Your task to perform on an android device: turn on the 24-hour format for clock Image 0: 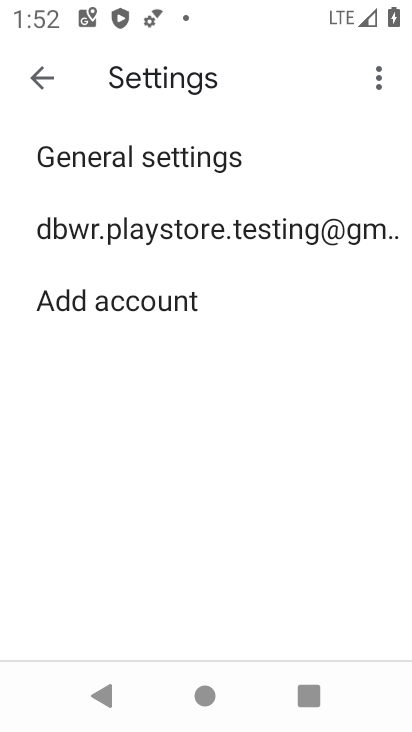
Step 0: press home button
Your task to perform on an android device: turn on the 24-hour format for clock Image 1: 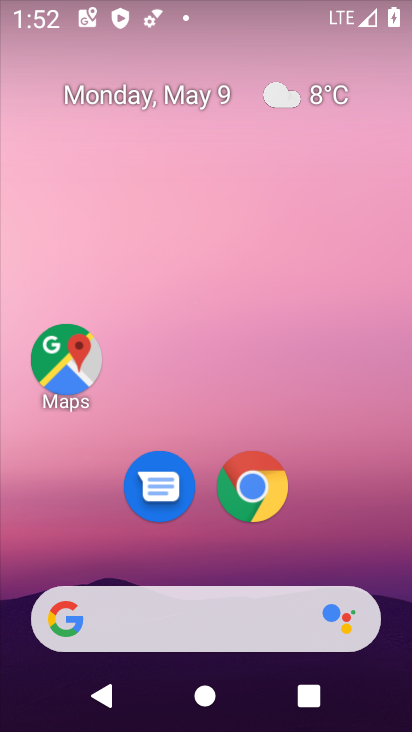
Step 1: drag from (287, 581) to (411, 157)
Your task to perform on an android device: turn on the 24-hour format for clock Image 2: 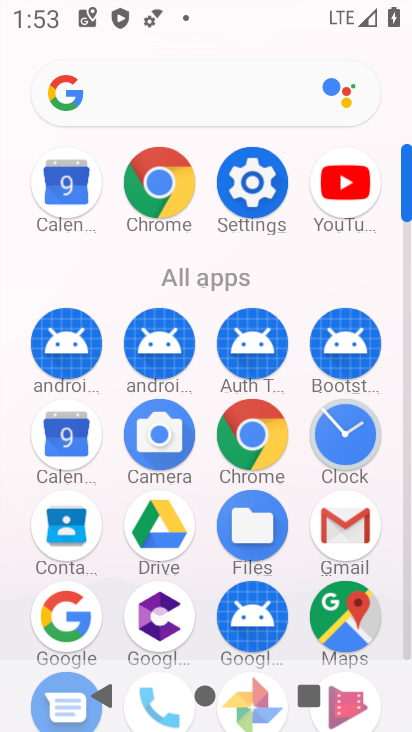
Step 2: click (341, 440)
Your task to perform on an android device: turn on the 24-hour format for clock Image 3: 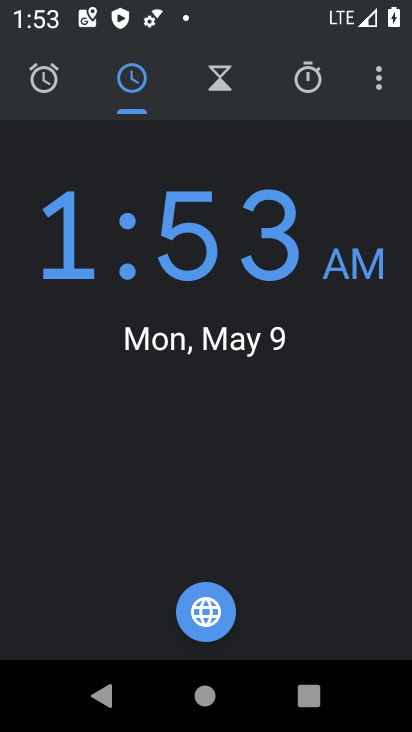
Step 3: click (334, 79)
Your task to perform on an android device: turn on the 24-hour format for clock Image 4: 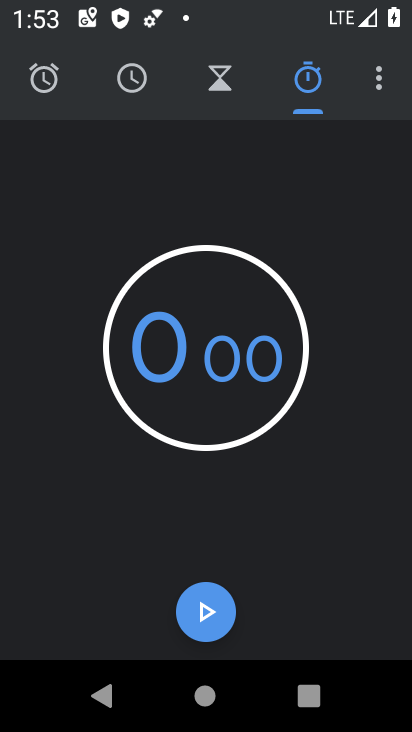
Step 4: click (63, 83)
Your task to perform on an android device: turn on the 24-hour format for clock Image 5: 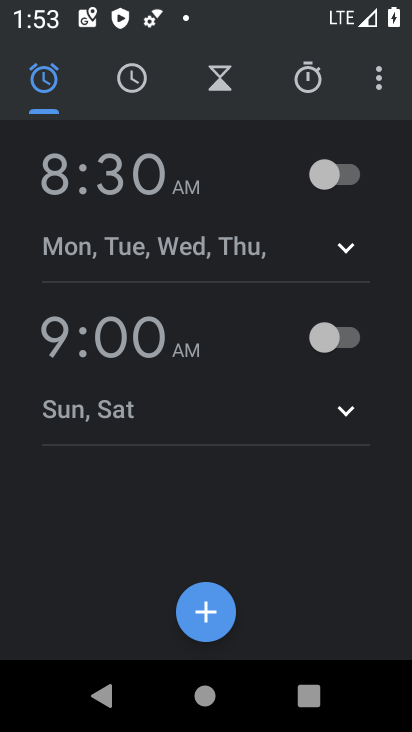
Step 5: press home button
Your task to perform on an android device: turn on the 24-hour format for clock Image 6: 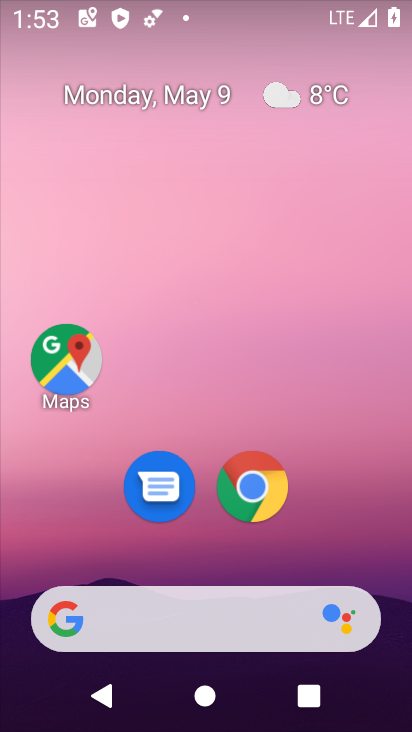
Step 6: drag from (199, 544) to (378, 59)
Your task to perform on an android device: turn on the 24-hour format for clock Image 7: 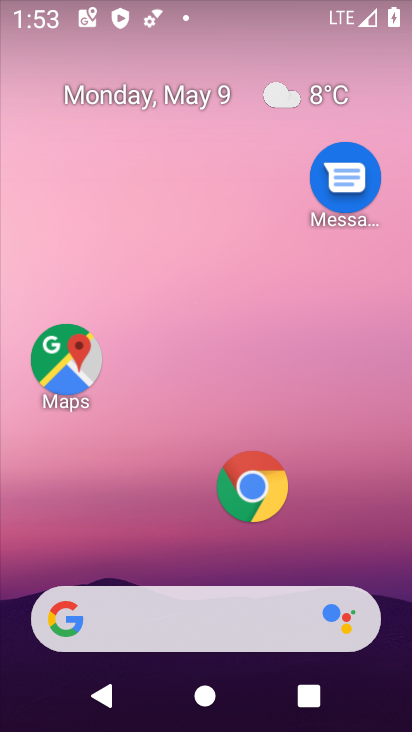
Step 7: drag from (184, 710) to (280, 332)
Your task to perform on an android device: turn on the 24-hour format for clock Image 8: 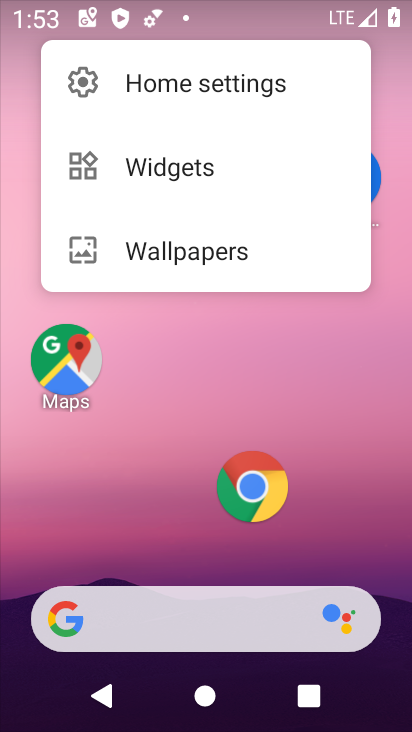
Step 8: click (219, 278)
Your task to perform on an android device: turn on the 24-hour format for clock Image 9: 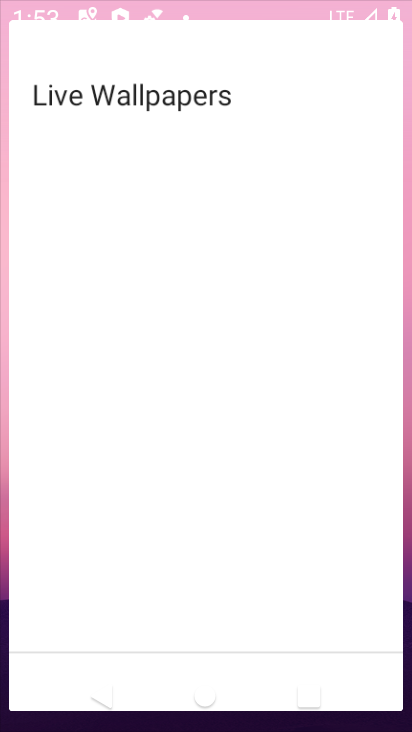
Step 9: click (186, 421)
Your task to perform on an android device: turn on the 24-hour format for clock Image 10: 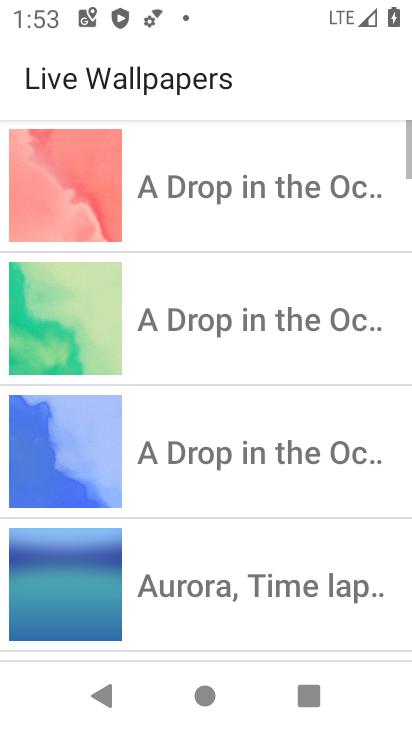
Step 10: click (122, 689)
Your task to perform on an android device: turn on the 24-hour format for clock Image 11: 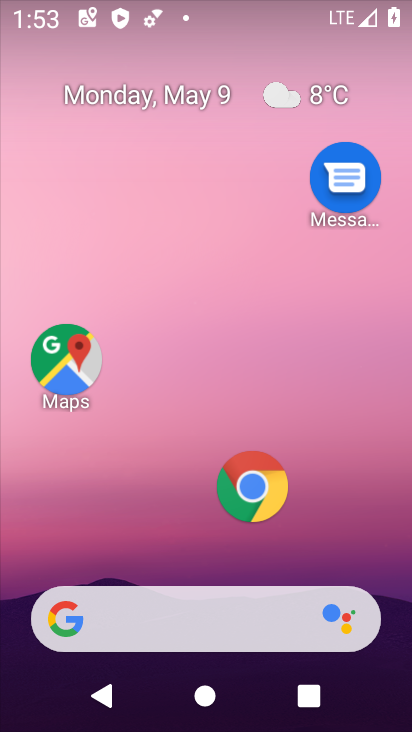
Step 11: drag from (147, 456) to (252, 243)
Your task to perform on an android device: turn on the 24-hour format for clock Image 12: 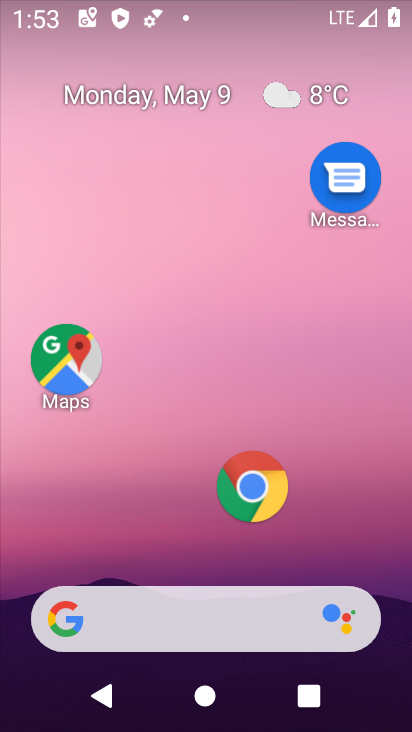
Step 12: drag from (268, 698) to (399, 354)
Your task to perform on an android device: turn on the 24-hour format for clock Image 13: 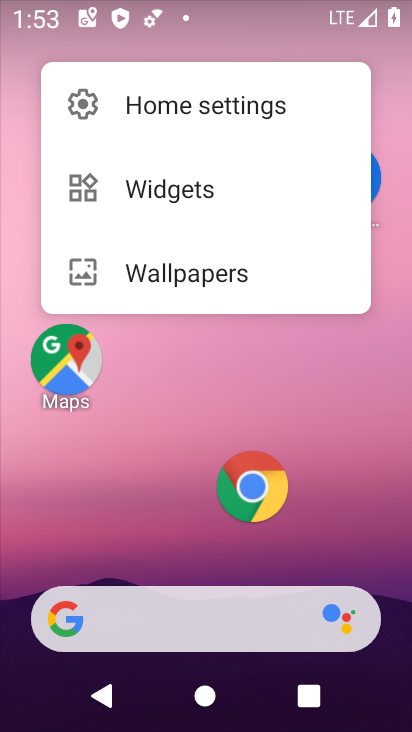
Step 13: drag from (156, 706) to (341, 285)
Your task to perform on an android device: turn on the 24-hour format for clock Image 14: 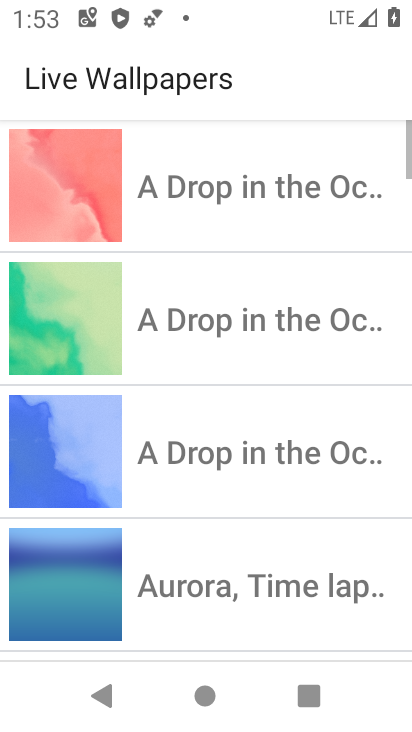
Step 14: click (115, 681)
Your task to perform on an android device: turn on the 24-hour format for clock Image 15: 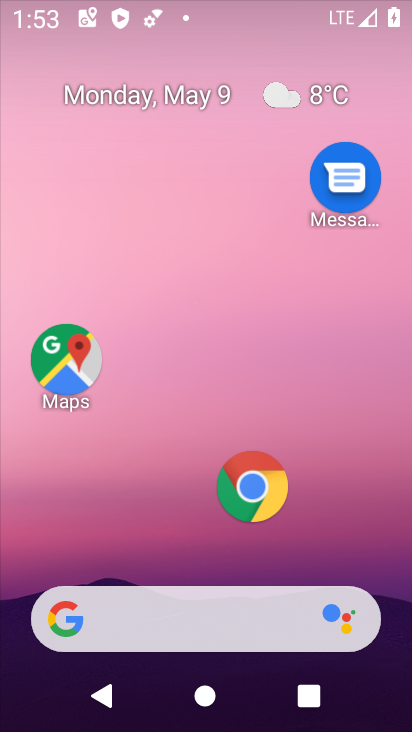
Step 15: drag from (222, 474) to (369, 168)
Your task to perform on an android device: turn on the 24-hour format for clock Image 16: 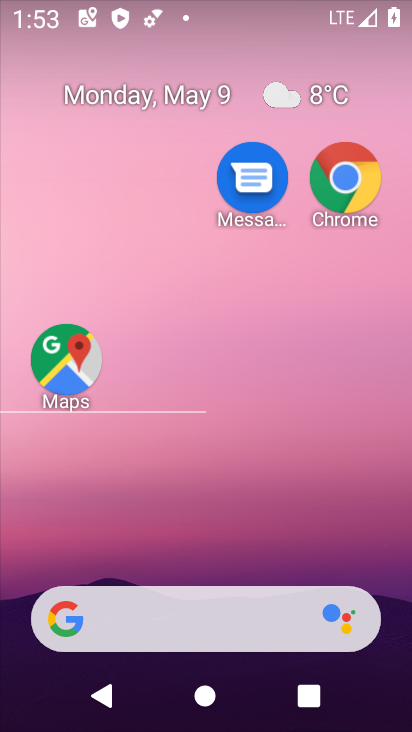
Step 16: click (164, 483)
Your task to perform on an android device: turn on the 24-hour format for clock Image 17: 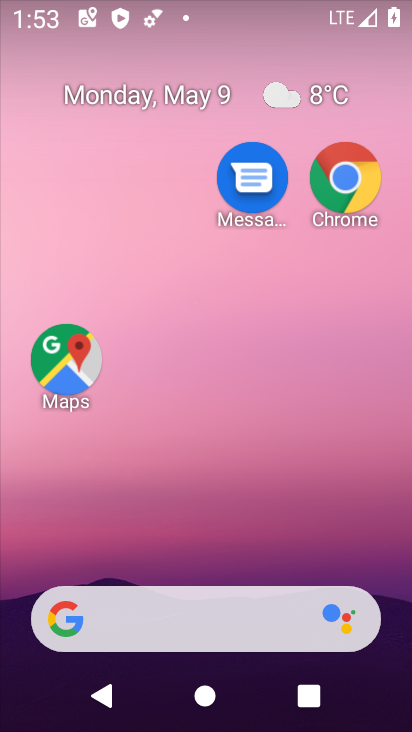
Step 17: drag from (163, 490) to (334, 66)
Your task to perform on an android device: turn on the 24-hour format for clock Image 18: 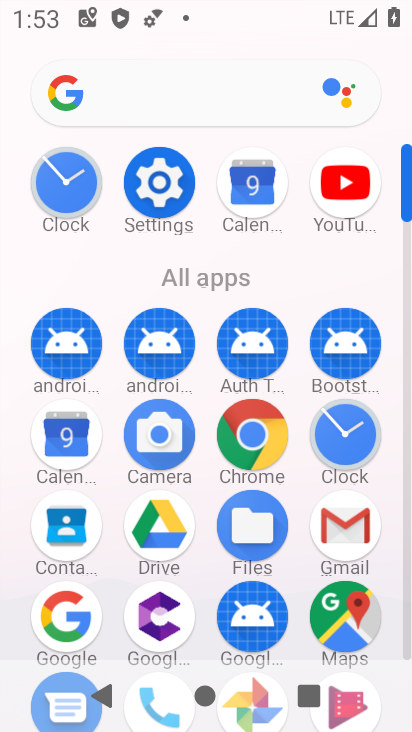
Step 18: click (149, 173)
Your task to perform on an android device: turn on the 24-hour format for clock Image 19: 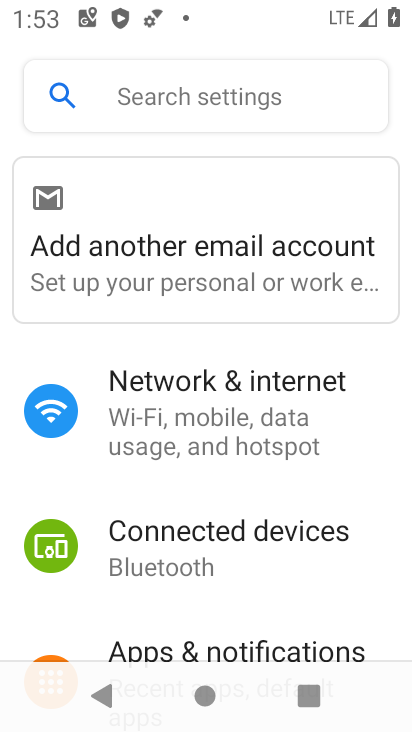
Step 19: drag from (148, 559) to (222, 278)
Your task to perform on an android device: turn on the 24-hour format for clock Image 20: 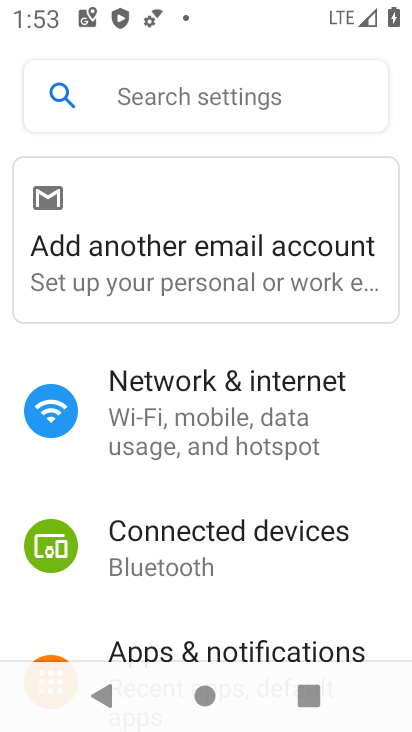
Step 20: drag from (107, 641) to (412, 159)
Your task to perform on an android device: turn on the 24-hour format for clock Image 21: 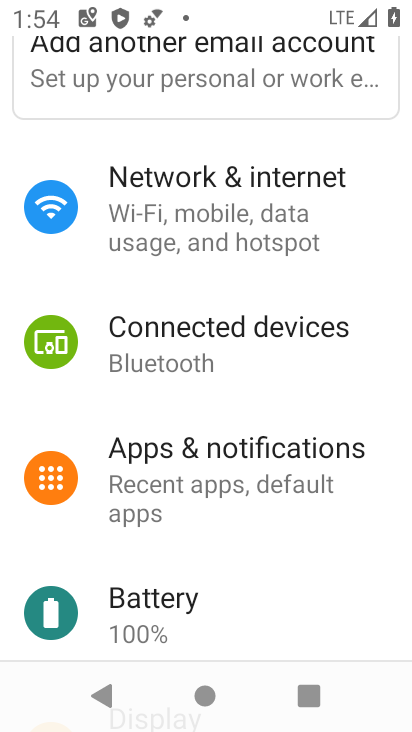
Step 21: drag from (192, 556) to (270, 163)
Your task to perform on an android device: turn on the 24-hour format for clock Image 22: 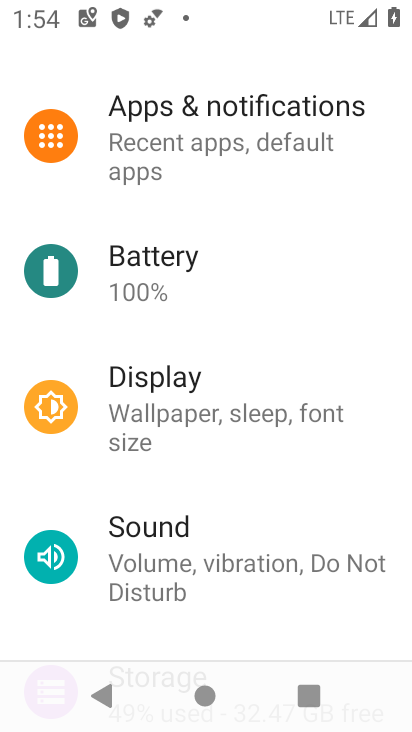
Step 22: drag from (182, 488) to (318, 69)
Your task to perform on an android device: turn on the 24-hour format for clock Image 23: 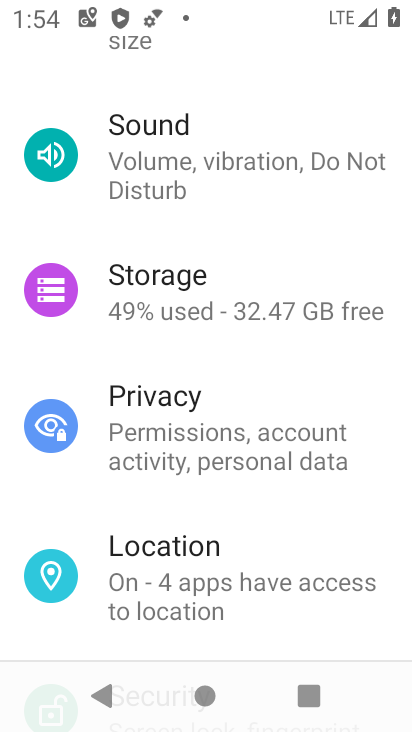
Step 23: drag from (195, 455) to (310, 157)
Your task to perform on an android device: turn on the 24-hour format for clock Image 24: 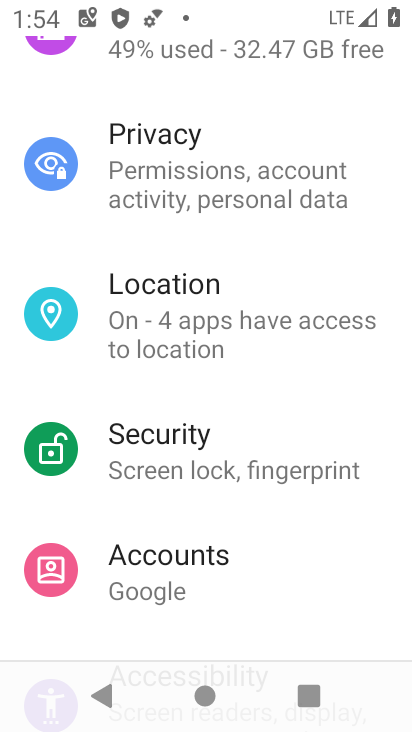
Step 24: drag from (195, 516) to (311, 196)
Your task to perform on an android device: turn on the 24-hour format for clock Image 25: 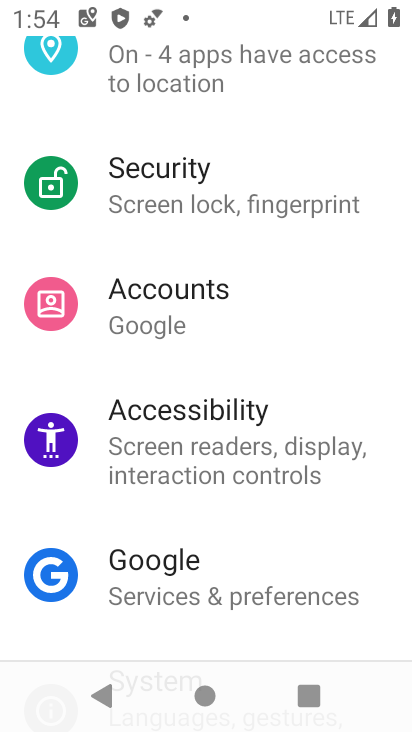
Step 25: drag from (195, 542) to (304, 130)
Your task to perform on an android device: turn on the 24-hour format for clock Image 26: 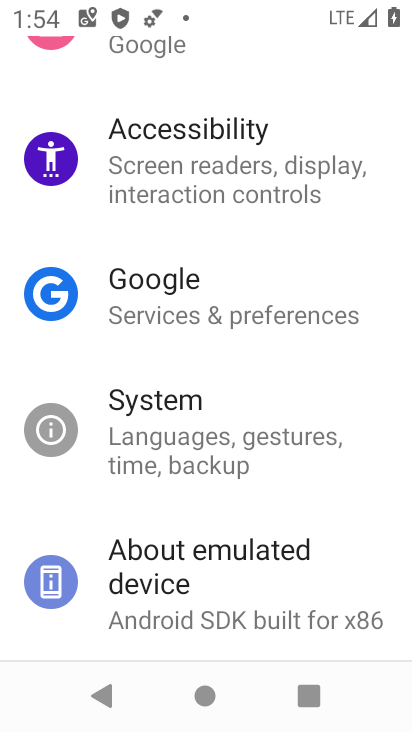
Step 26: drag from (159, 565) to (333, 112)
Your task to perform on an android device: turn on the 24-hour format for clock Image 27: 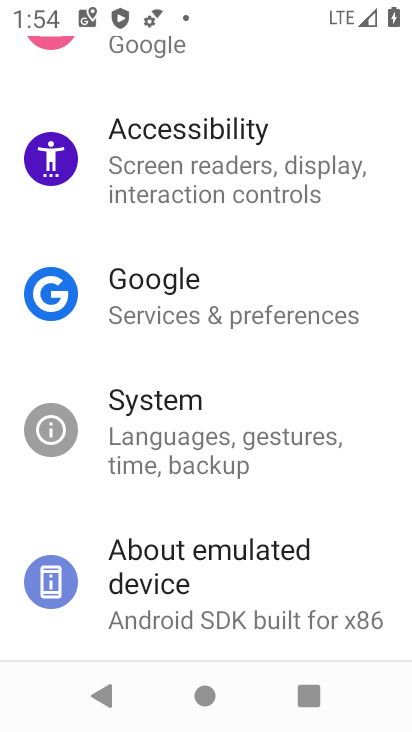
Step 27: drag from (249, 234) to (187, 605)
Your task to perform on an android device: turn on the 24-hour format for clock Image 28: 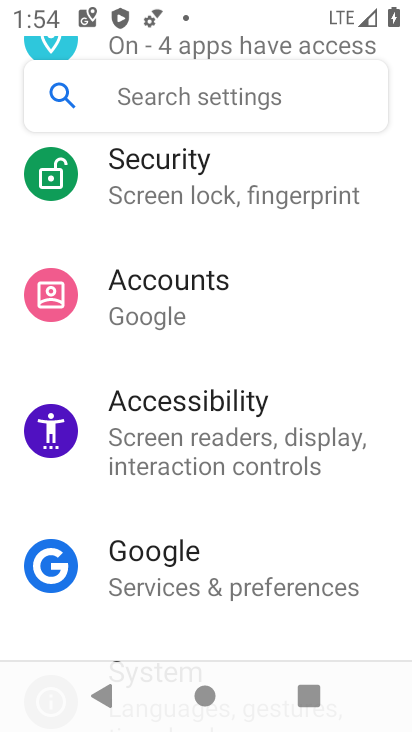
Step 28: drag from (297, 208) to (202, 568)
Your task to perform on an android device: turn on the 24-hour format for clock Image 29: 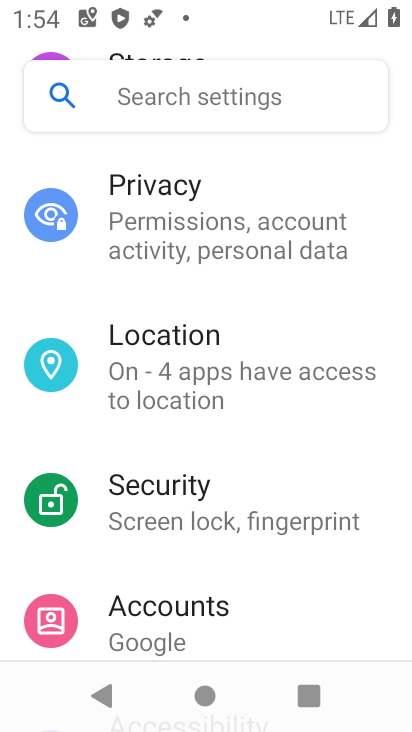
Step 29: drag from (312, 208) to (192, 508)
Your task to perform on an android device: turn on the 24-hour format for clock Image 30: 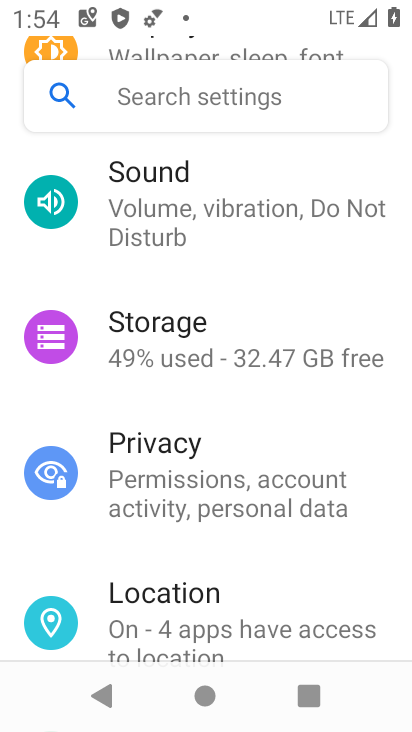
Step 30: drag from (343, 136) to (204, 471)
Your task to perform on an android device: turn on the 24-hour format for clock Image 31: 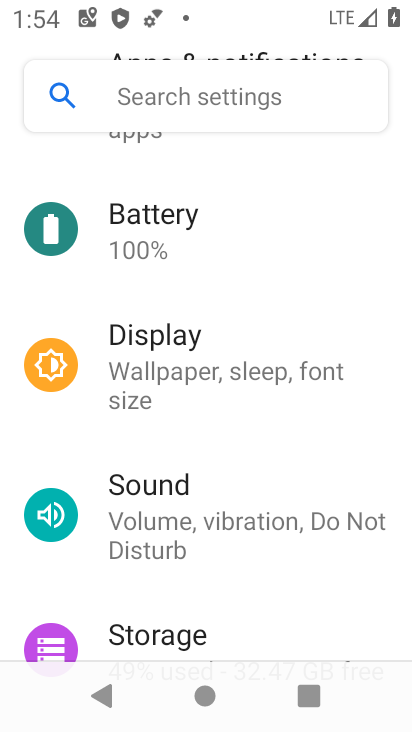
Step 31: drag from (298, 276) to (187, 646)
Your task to perform on an android device: turn on the 24-hour format for clock Image 32: 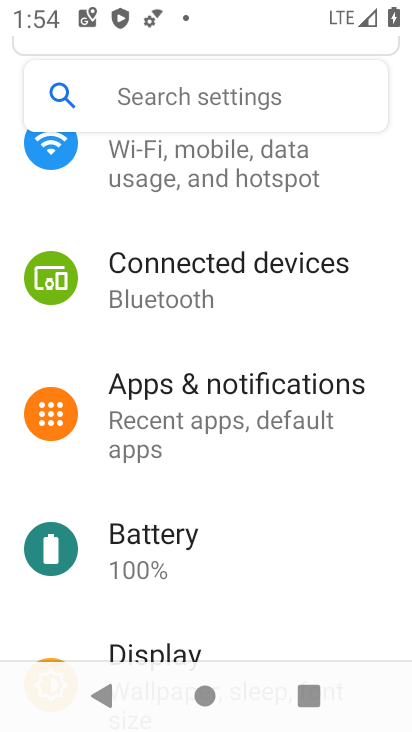
Step 32: drag from (302, 389) to (174, 652)
Your task to perform on an android device: turn on the 24-hour format for clock Image 33: 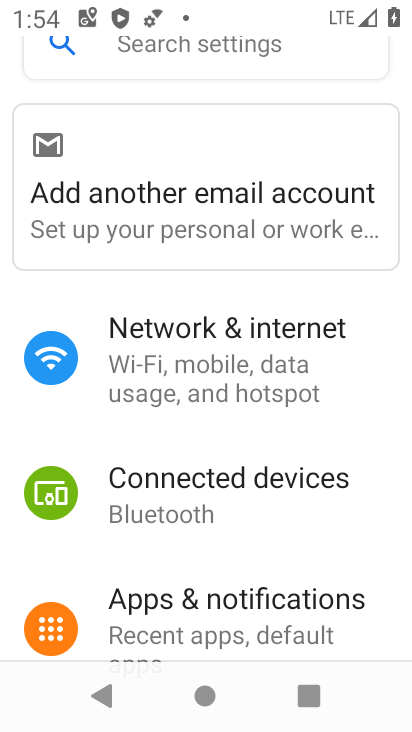
Step 33: drag from (284, 379) to (173, 623)
Your task to perform on an android device: turn on the 24-hour format for clock Image 34: 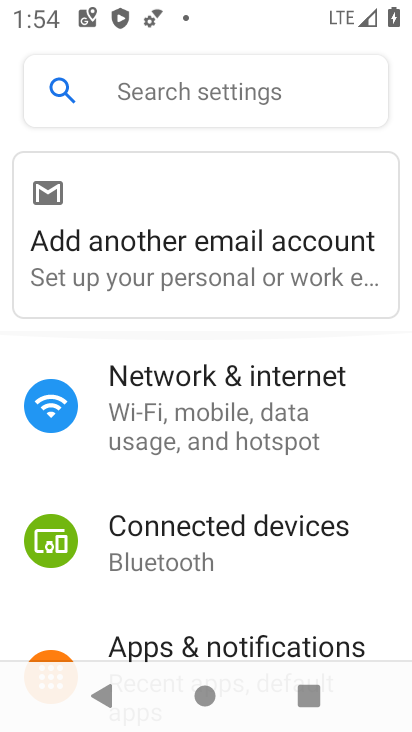
Step 34: drag from (179, 584) to (355, 185)
Your task to perform on an android device: turn on the 24-hour format for clock Image 35: 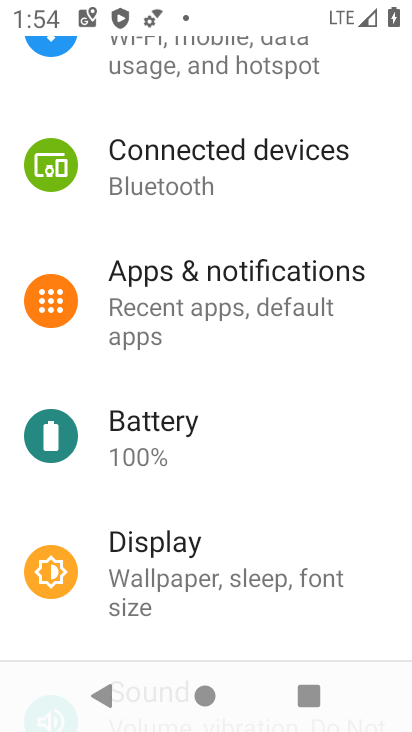
Step 35: drag from (229, 493) to (366, 86)
Your task to perform on an android device: turn on the 24-hour format for clock Image 36: 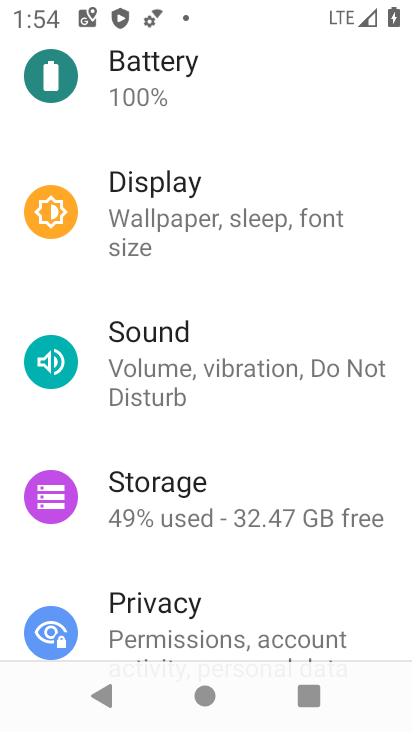
Step 36: drag from (92, 649) to (332, 164)
Your task to perform on an android device: turn on the 24-hour format for clock Image 37: 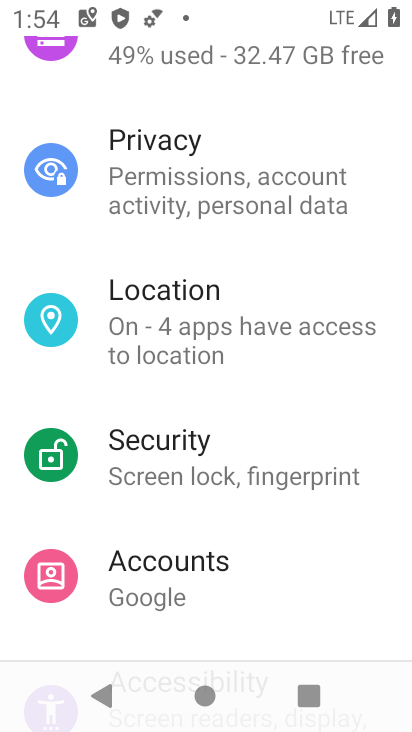
Step 37: click (96, 685)
Your task to perform on an android device: turn on the 24-hour format for clock Image 38: 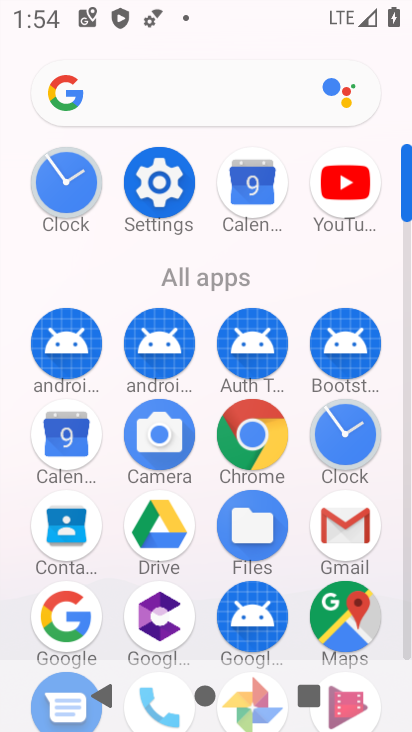
Step 38: click (43, 176)
Your task to perform on an android device: turn on the 24-hour format for clock Image 39: 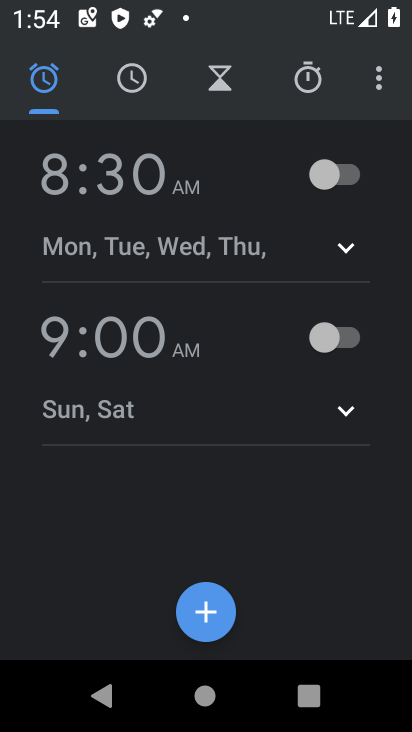
Step 39: click (371, 59)
Your task to perform on an android device: turn on the 24-hour format for clock Image 40: 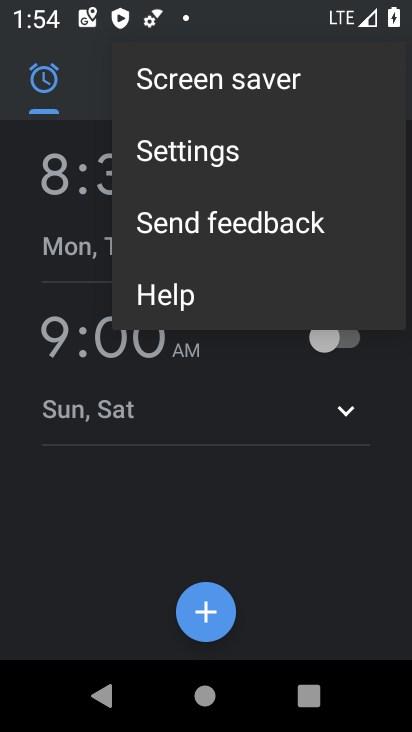
Step 40: click (321, 171)
Your task to perform on an android device: turn on the 24-hour format for clock Image 41: 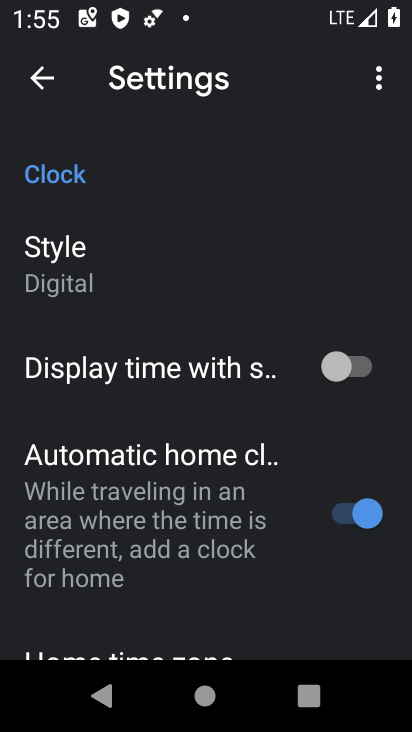
Step 41: press home button
Your task to perform on an android device: turn on the 24-hour format for clock Image 42: 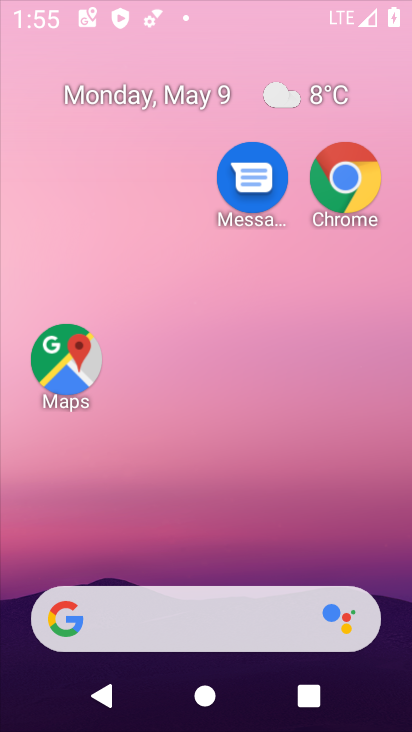
Step 42: press home button
Your task to perform on an android device: turn on the 24-hour format for clock Image 43: 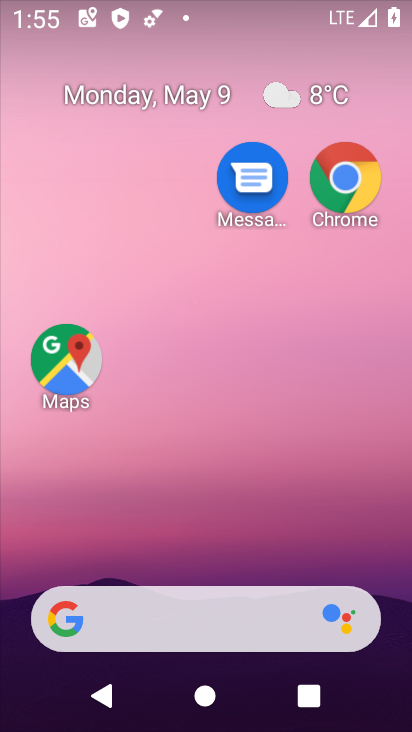
Step 43: drag from (270, 574) to (302, 4)
Your task to perform on an android device: turn on the 24-hour format for clock Image 44: 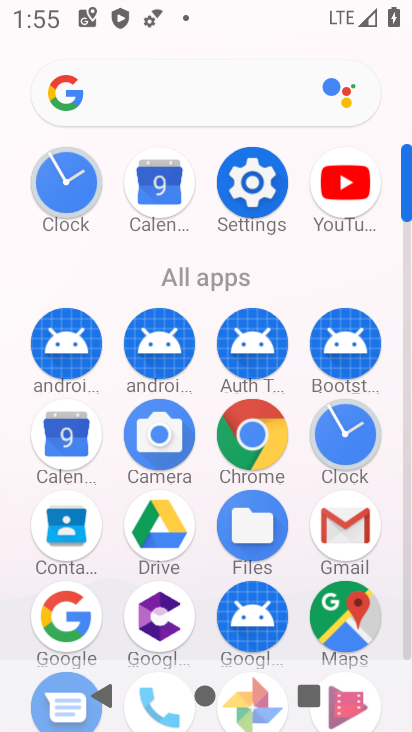
Step 44: click (244, 184)
Your task to perform on an android device: turn on the 24-hour format for clock Image 45: 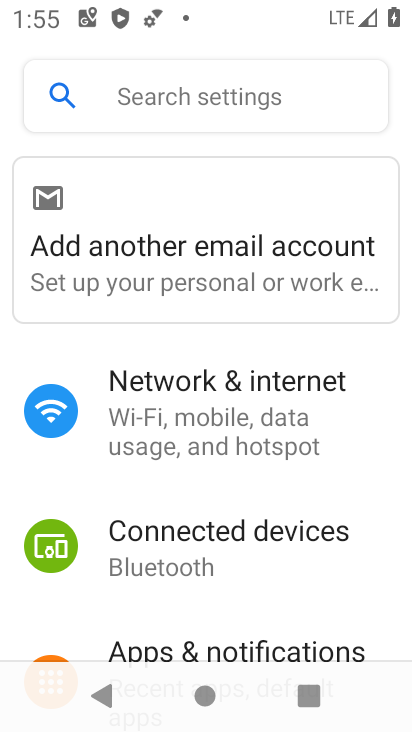
Step 45: drag from (237, 602) to (188, 97)
Your task to perform on an android device: turn on the 24-hour format for clock Image 46: 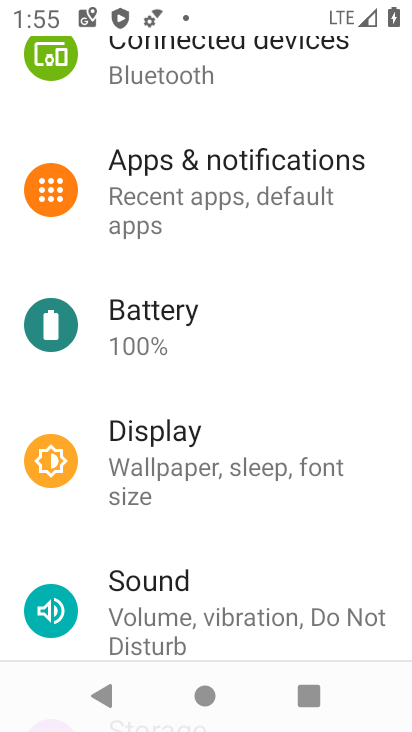
Step 46: drag from (298, 646) to (174, 179)
Your task to perform on an android device: turn on the 24-hour format for clock Image 47: 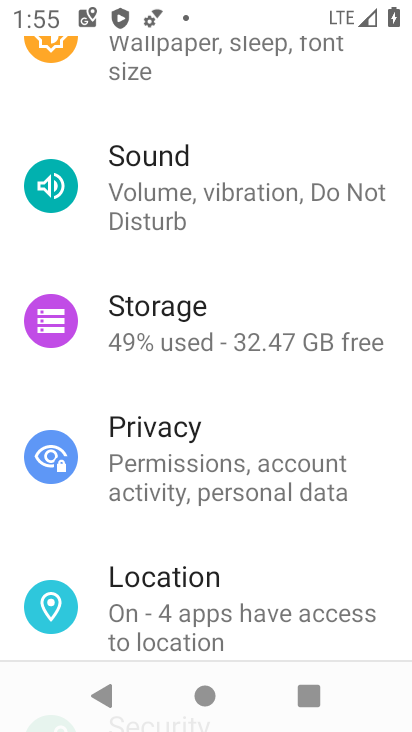
Step 47: drag from (242, 601) to (185, 192)
Your task to perform on an android device: turn on the 24-hour format for clock Image 48: 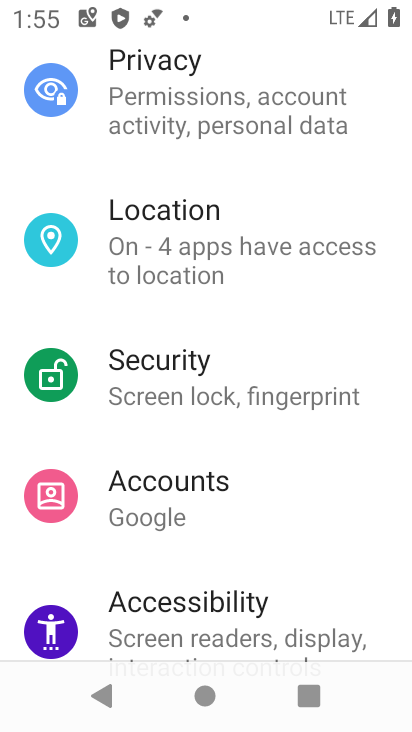
Step 48: drag from (191, 624) to (198, 149)
Your task to perform on an android device: turn on the 24-hour format for clock Image 49: 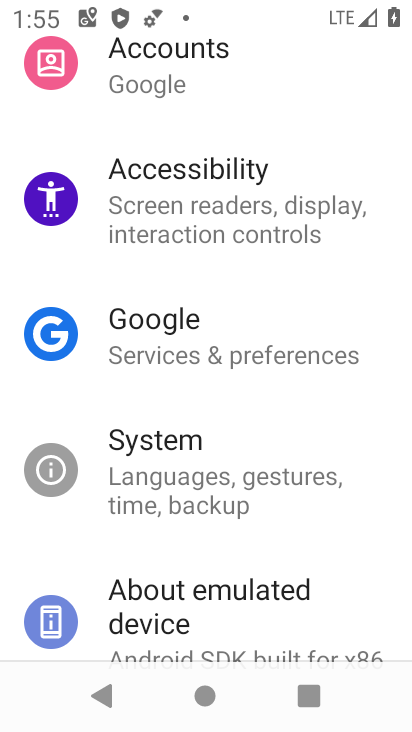
Step 49: click (197, 471)
Your task to perform on an android device: turn on the 24-hour format for clock Image 50: 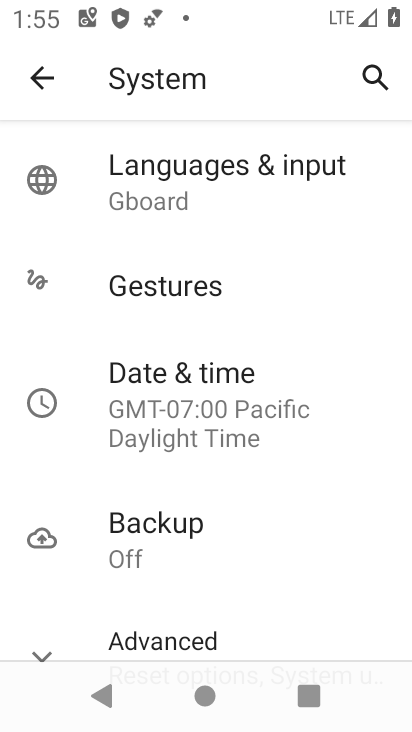
Step 50: drag from (260, 563) to (246, 28)
Your task to perform on an android device: turn on the 24-hour format for clock Image 51: 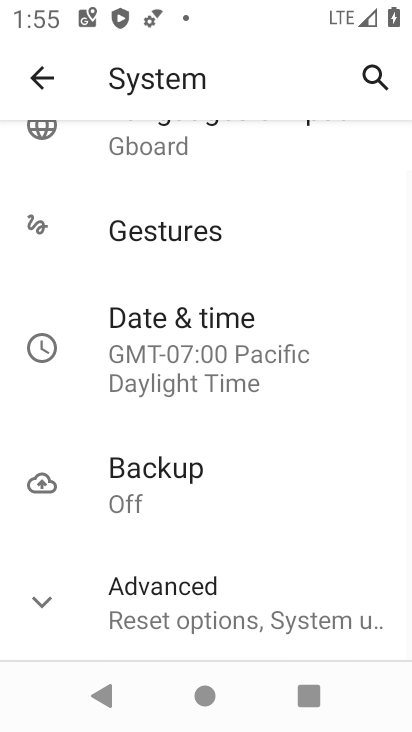
Step 51: drag from (263, 196) to (311, 522)
Your task to perform on an android device: turn on the 24-hour format for clock Image 52: 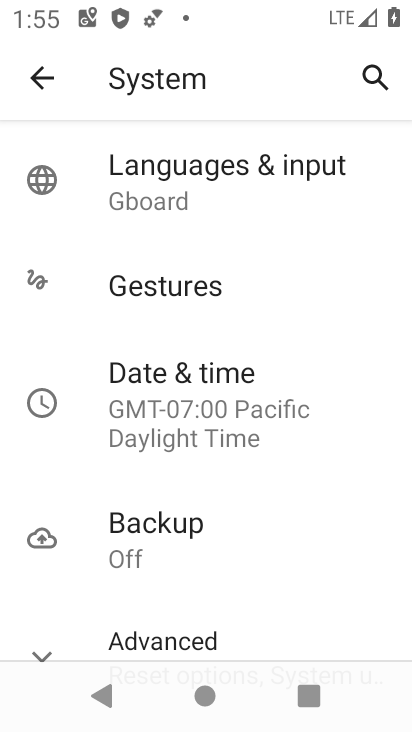
Step 52: click (270, 414)
Your task to perform on an android device: turn on the 24-hour format for clock Image 53: 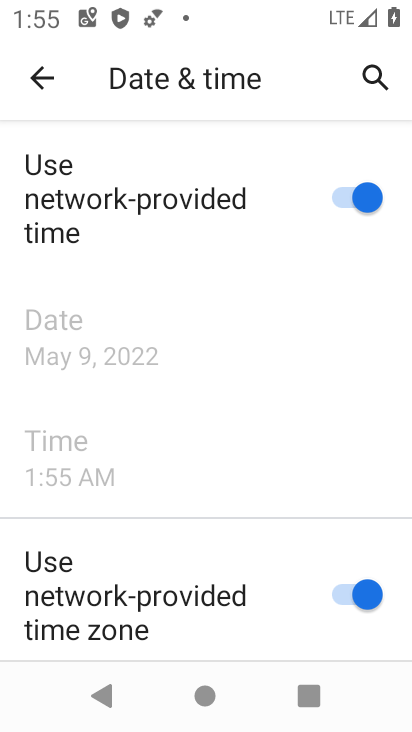
Step 53: drag from (254, 617) to (190, 50)
Your task to perform on an android device: turn on the 24-hour format for clock Image 54: 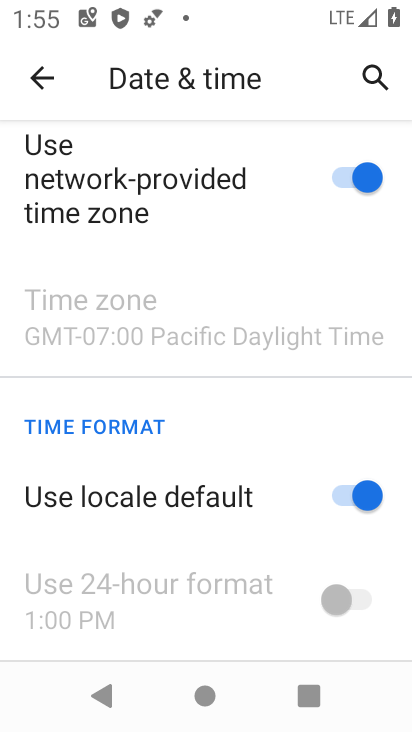
Step 54: click (356, 500)
Your task to perform on an android device: turn on the 24-hour format for clock Image 55: 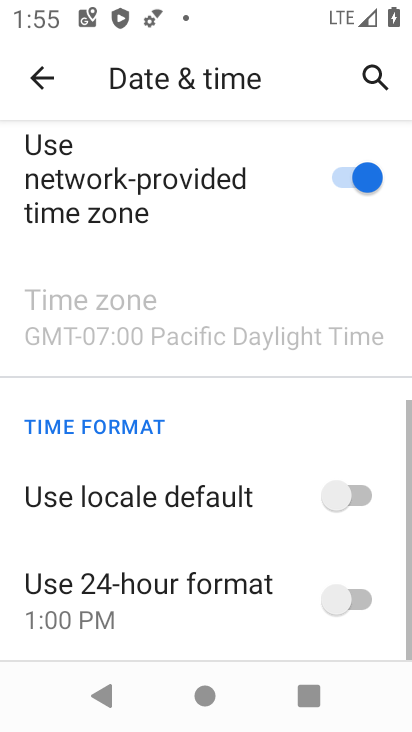
Step 55: click (336, 593)
Your task to perform on an android device: turn on the 24-hour format for clock Image 56: 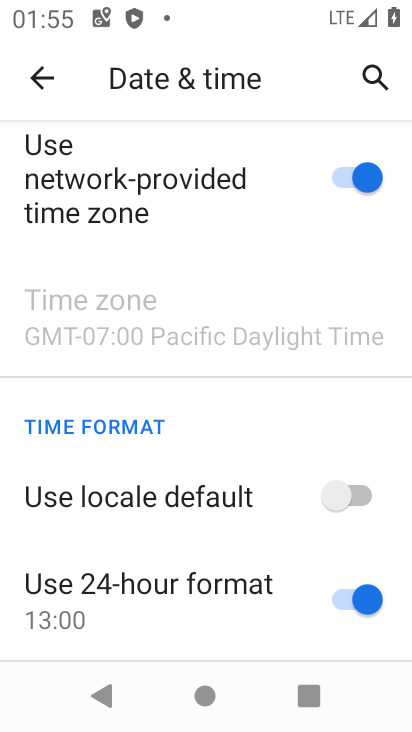
Step 56: task complete